Your task to perform on an android device: Open settings on Google Maps Image 0: 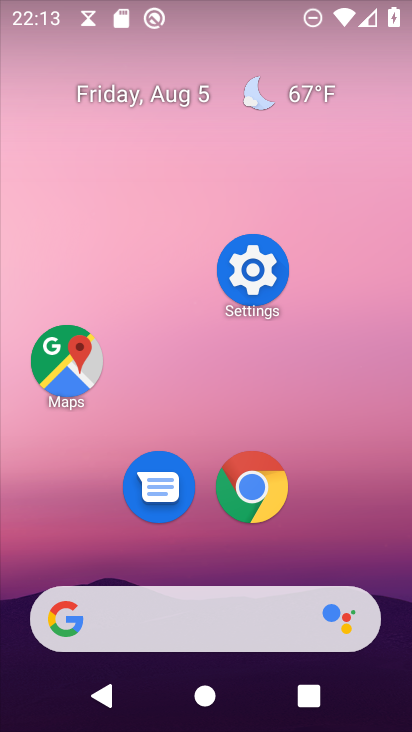
Step 0: click (62, 358)
Your task to perform on an android device: Open settings on Google Maps Image 1: 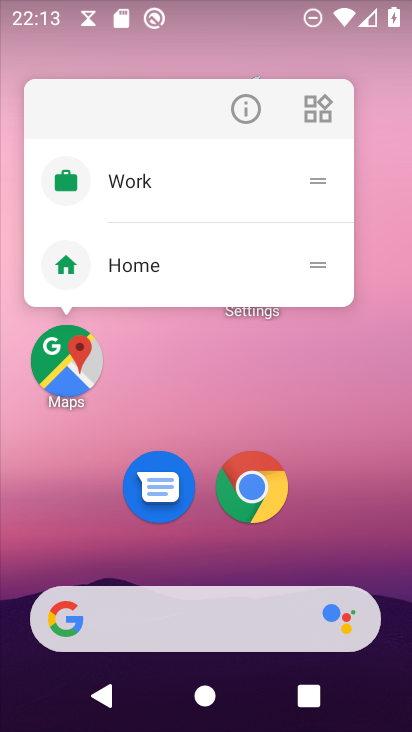
Step 1: click (68, 360)
Your task to perform on an android device: Open settings on Google Maps Image 2: 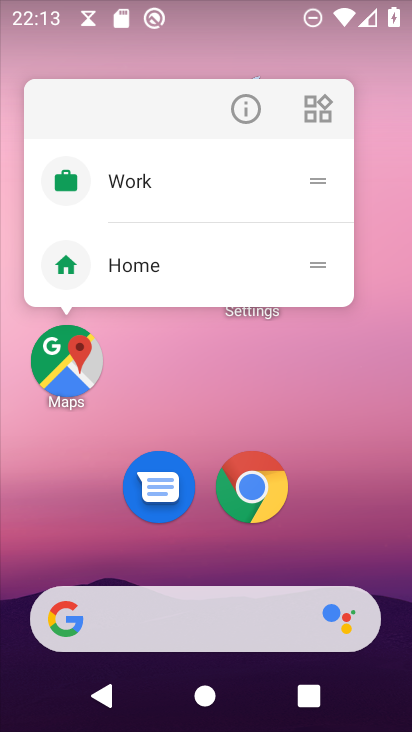
Step 2: click (68, 361)
Your task to perform on an android device: Open settings on Google Maps Image 3: 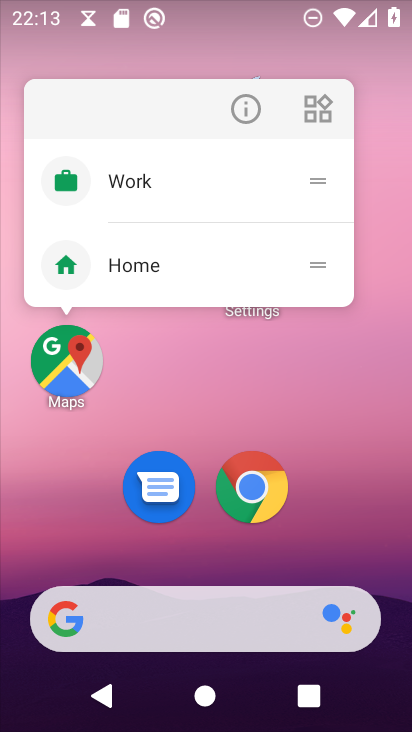
Step 3: click (68, 364)
Your task to perform on an android device: Open settings on Google Maps Image 4: 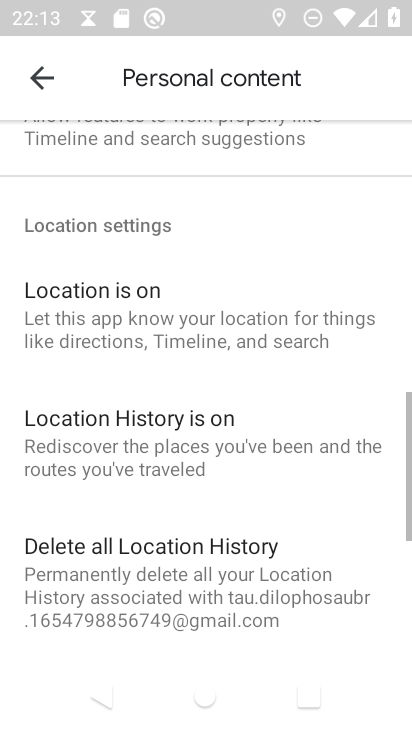
Step 4: click (41, 70)
Your task to perform on an android device: Open settings on Google Maps Image 5: 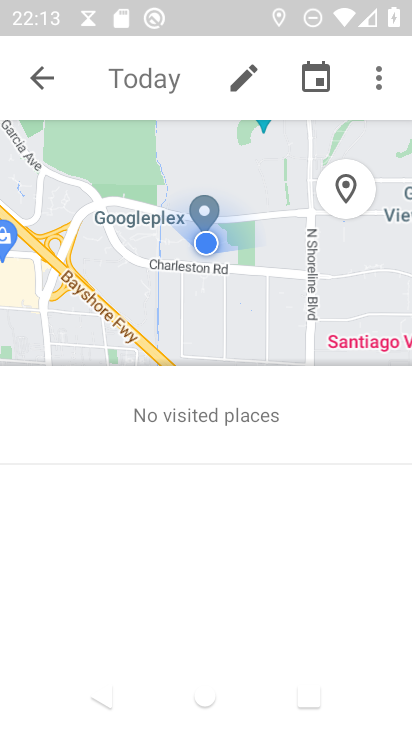
Step 5: click (41, 70)
Your task to perform on an android device: Open settings on Google Maps Image 6: 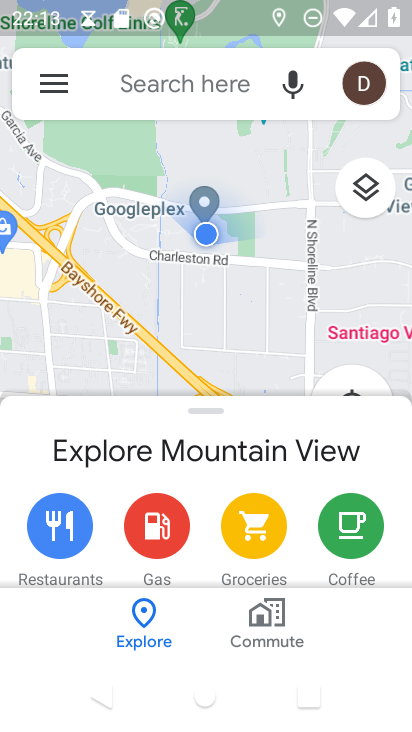
Step 6: click (54, 84)
Your task to perform on an android device: Open settings on Google Maps Image 7: 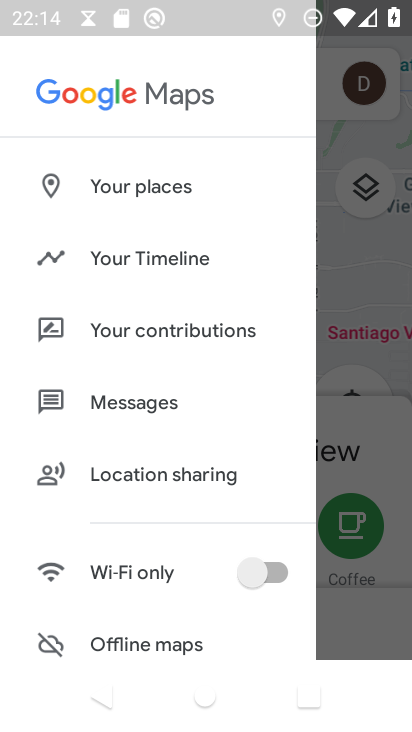
Step 7: drag from (214, 442) to (270, 181)
Your task to perform on an android device: Open settings on Google Maps Image 8: 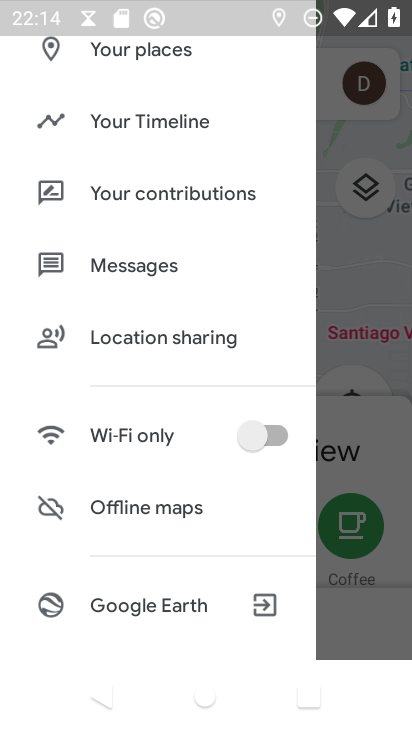
Step 8: drag from (186, 492) to (243, 245)
Your task to perform on an android device: Open settings on Google Maps Image 9: 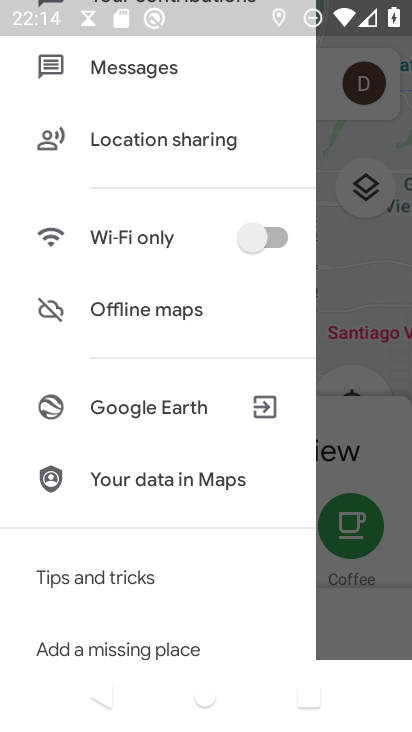
Step 9: drag from (175, 547) to (243, 283)
Your task to perform on an android device: Open settings on Google Maps Image 10: 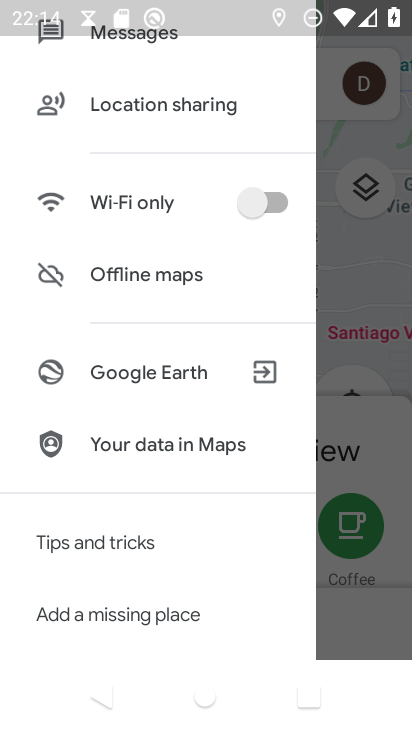
Step 10: drag from (137, 557) to (307, 46)
Your task to perform on an android device: Open settings on Google Maps Image 11: 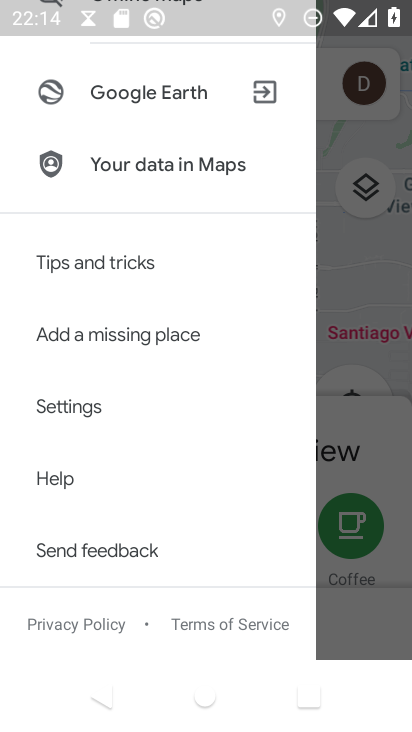
Step 11: click (86, 404)
Your task to perform on an android device: Open settings on Google Maps Image 12: 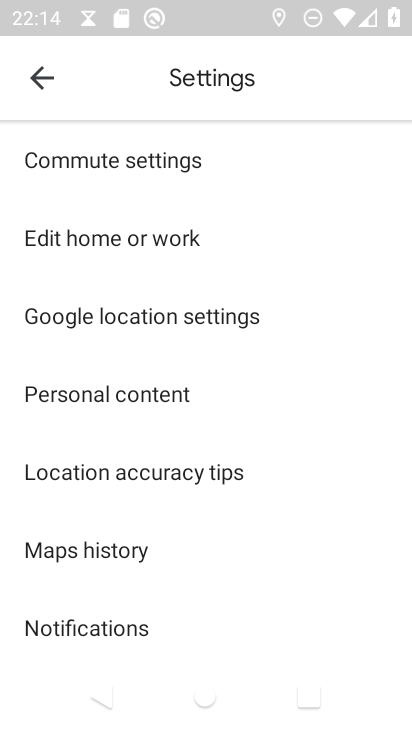
Step 12: task complete